Your task to perform on an android device: turn notification dots off Image 0: 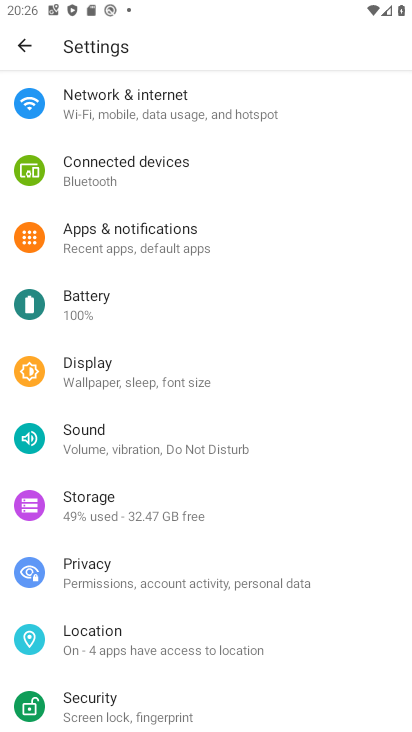
Step 0: click (131, 236)
Your task to perform on an android device: turn notification dots off Image 1: 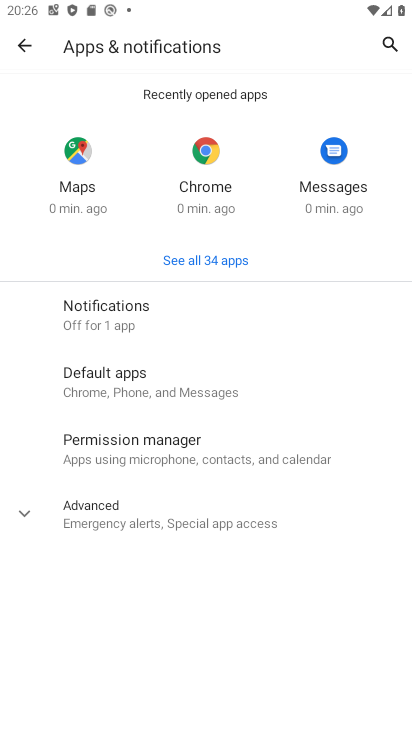
Step 1: click (108, 319)
Your task to perform on an android device: turn notification dots off Image 2: 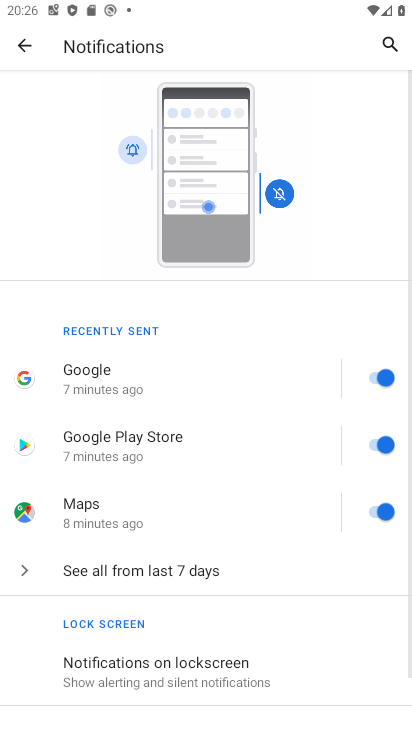
Step 2: drag from (136, 630) to (189, 206)
Your task to perform on an android device: turn notification dots off Image 3: 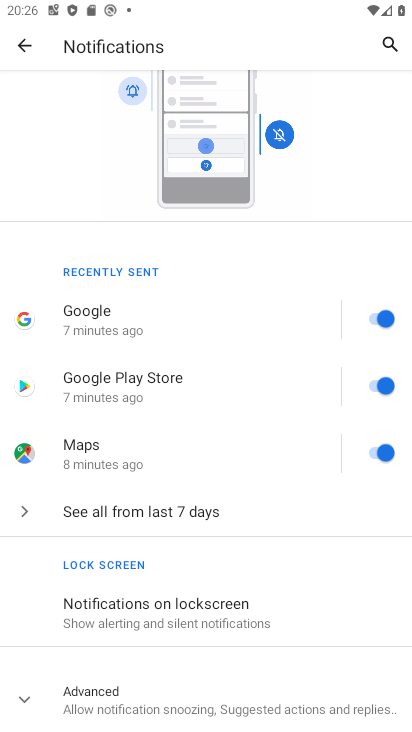
Step 3: click (138, 701)
Your task to perform on an android device: turn notification dots off Image 4: 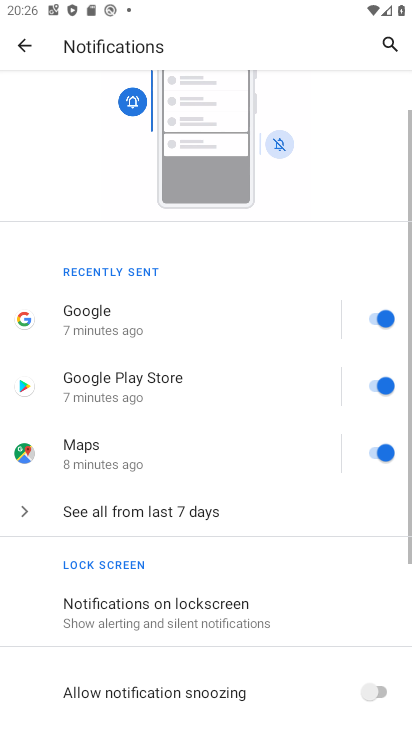
Step 4: task complete